Your task to perform on an android device: What's on my calendar tomorrow? Image 0: 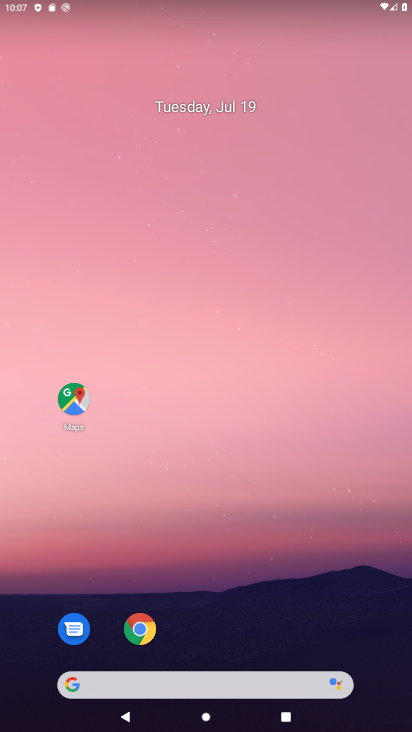
Step 0: drag from (254, 545) to (321, 139)
Your task to perform on an android device: What's on my calendar tomorrow? Image 1: 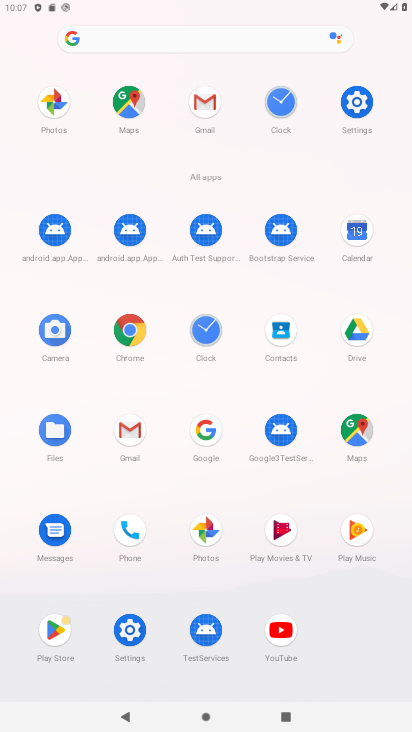
Step 1: click (352, 224)
Your task to perform on an android device: What's on my calendar tomorrow? Image 2: 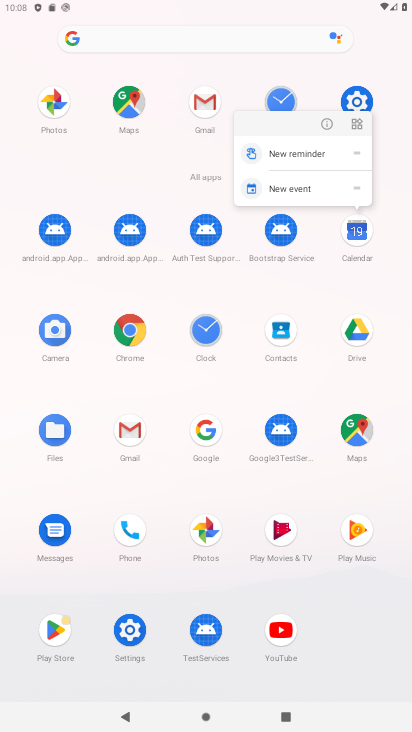
Step 2: click (323, 129)
Your task to perform on an android device: What's on my calendar tomorrow? Image 3: 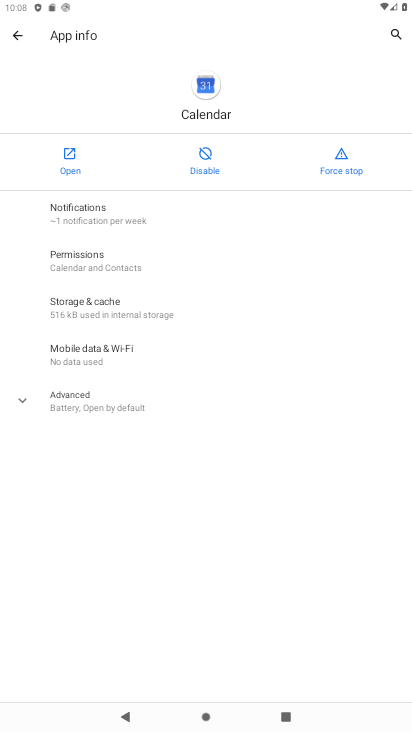
Step 3: click (64, 180)
Your task to perform on an android device: What's on my calendar tomorrow? Image 4: 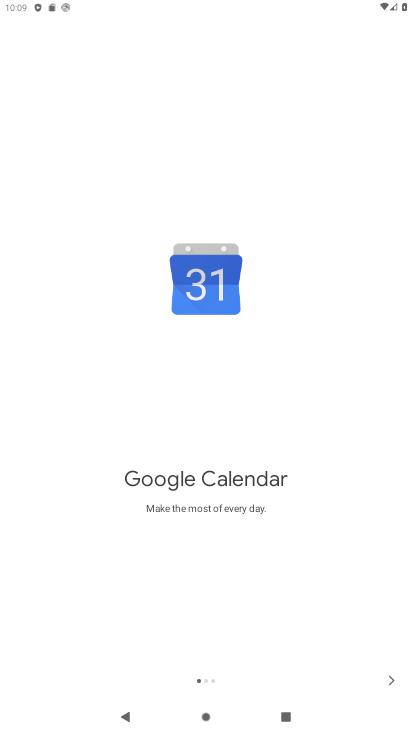
Step 4: click (392, 676)
Your task to perform on an android device: What's on my calendar tomorrow? Image 5: 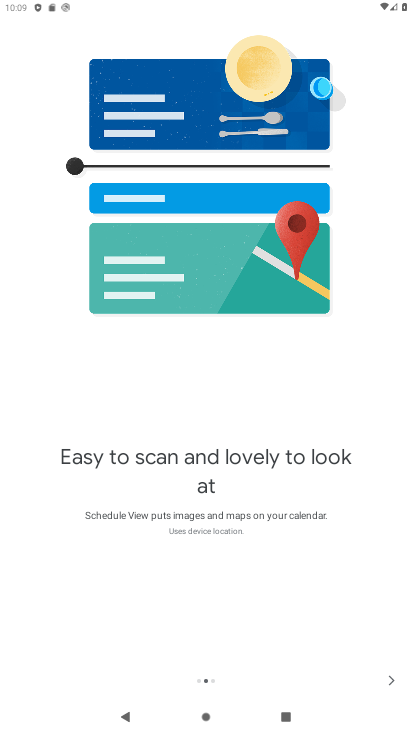
Step 5: click (382, 671)
Your task to perform on an android device: What's on my calendar tomorrow? Image 6: 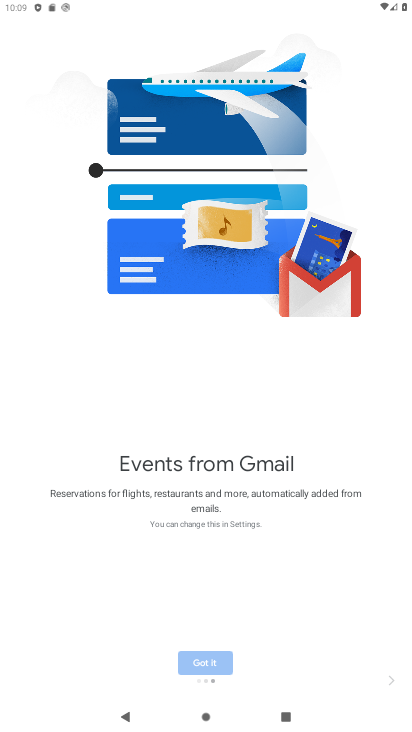
Step 6: click (383, 677)
Your task to perform on an android device: What's on my calendar tomorrow? Image 7: 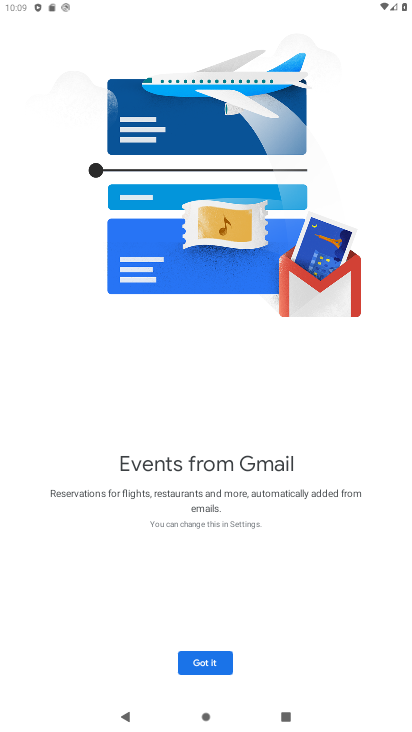
Step 7: click (195, 662)
Your task to perform on an android device: What's on my calendar tomorrow? Image 8: 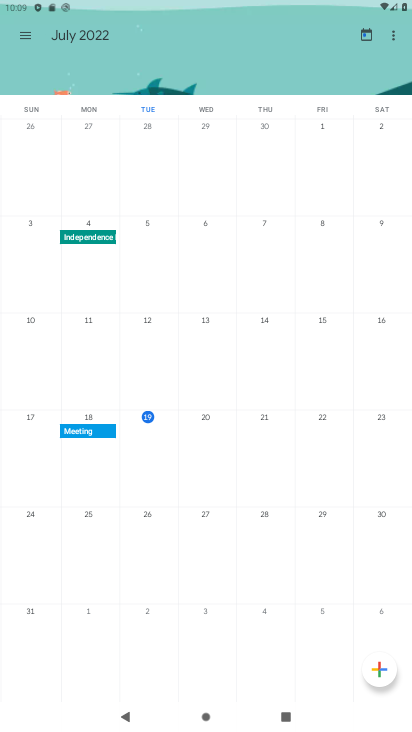
Step 8: click (200, 423)
Your task to perform on an android device: What's on my calendar tomorrow? Image 9: 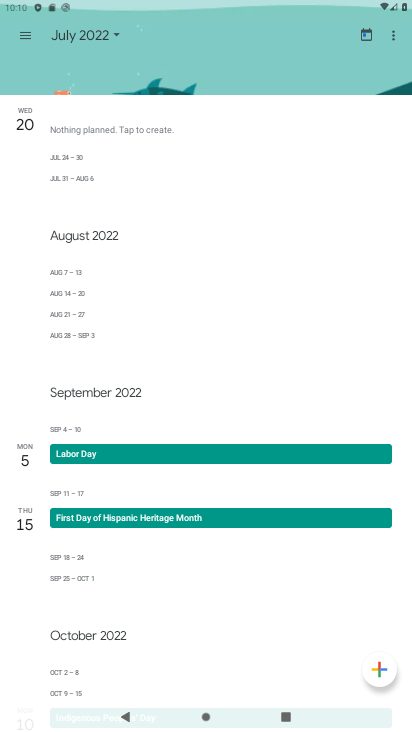
Step 9: task complete